Your task to perform on an android device: toggle translation in the chrome app Image 0: 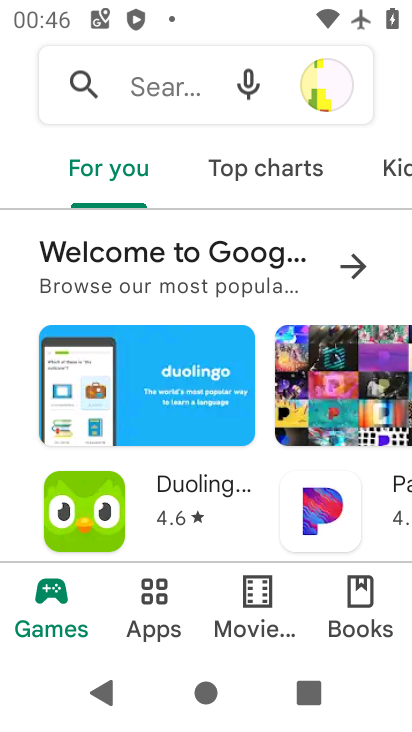
Step 0: click (330, 701)
Your task to perform on an android device: toggle translation in the chrome app Image 1: 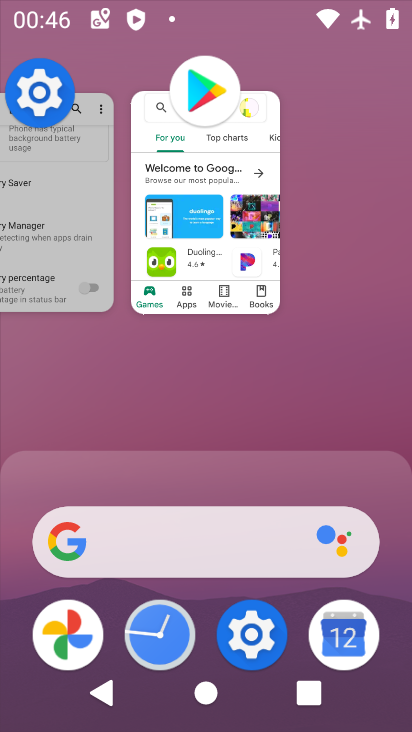
Step 1: click (217, 267)
Your task to perform on an android device: toggle translation in the chrome app Image 2: 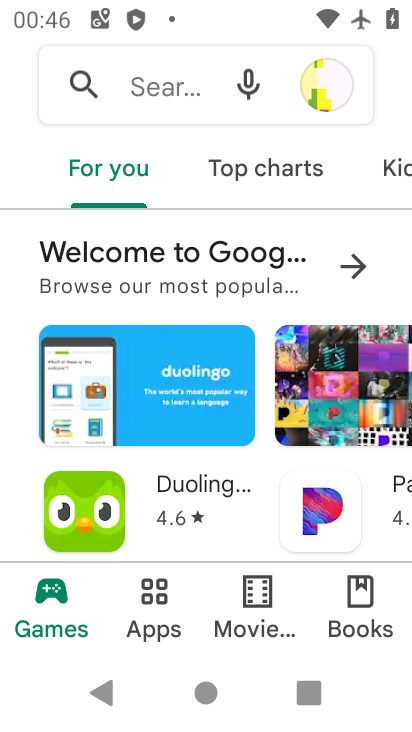
Step 2: press home button
Your task to perform on an android device: toggle translation in the chrome app Image 3: 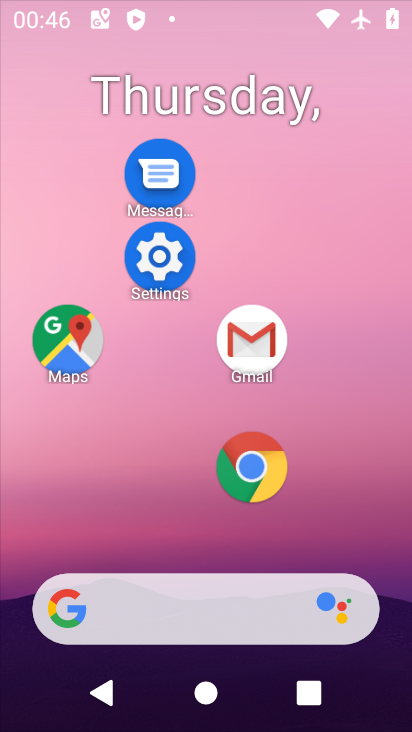
Step 3: drag from (201, 583) to (221, 199)
Your task to perform on an android device: toggle translation in the chrome app Image 4: 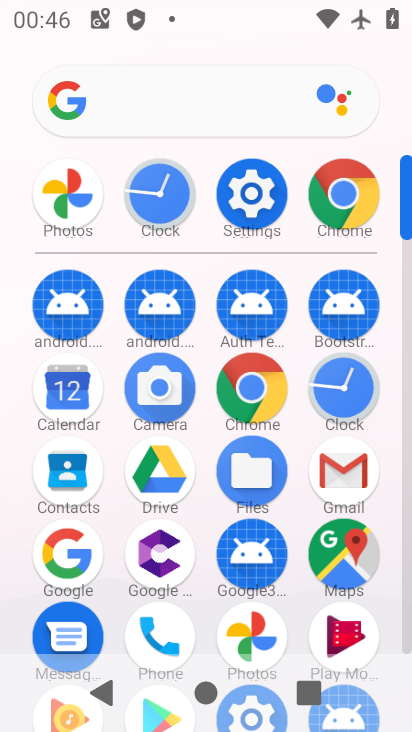
Step 4: click (247, 383)
Your task to perform on an android device: toggle translation in the chrome app Image 5: 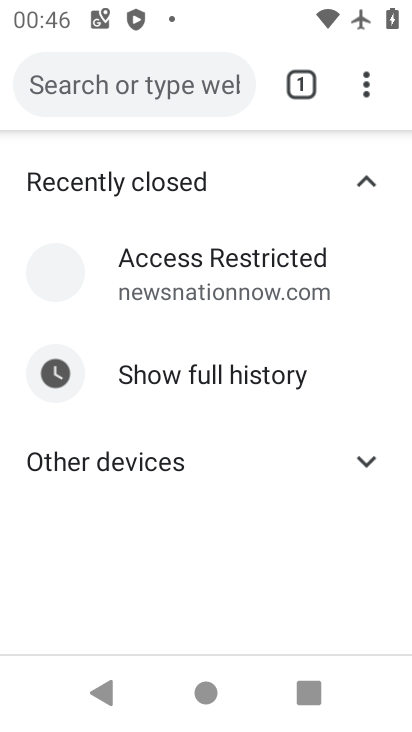
Step 5: drag from (365, 106) to (236, 314)
Your task to perform on an android device: toggle translation in the chrome app Image 6: 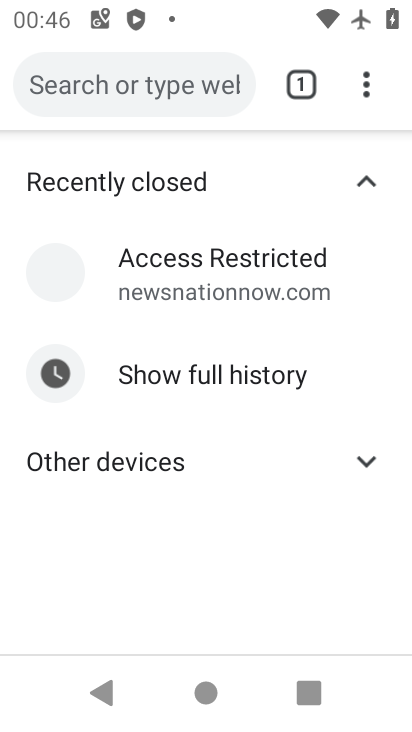
Step 6: drag from (306, 222) to (168, 535)
Your task to perform on an android device: toggle translation in the chrome app Image 7: 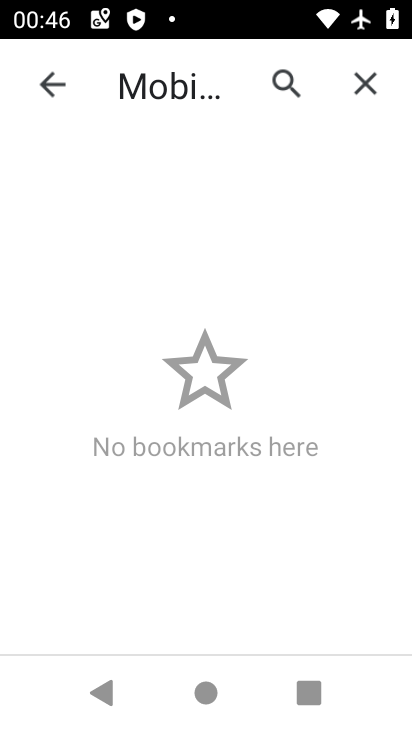
Step 7: click (384, 81)
Your task to perform on an android device: toggle translation in the chrome app Image 8: 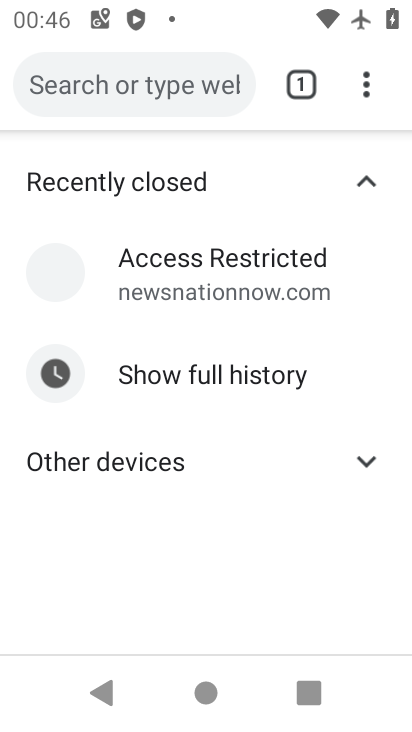
Step 8: drag from (375, 82) to (132, 520)
Your task to perform on an android device: toggle translation in the chrome app Image 9: 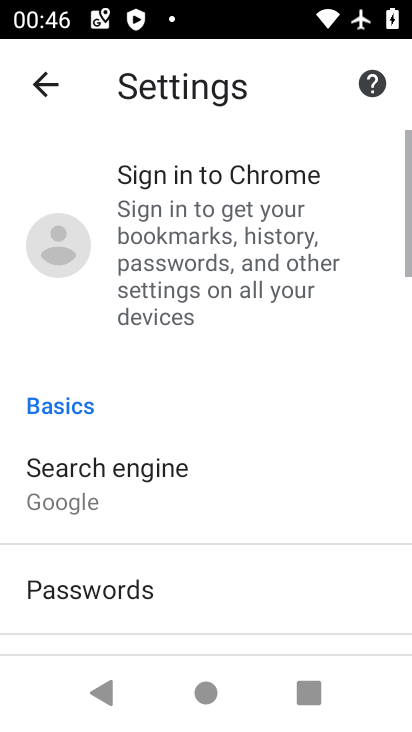
Step 9: drag from (163, 505) to (233, 161)
Your task to perform on an android device: toggle translation in the chrome app Image 10: 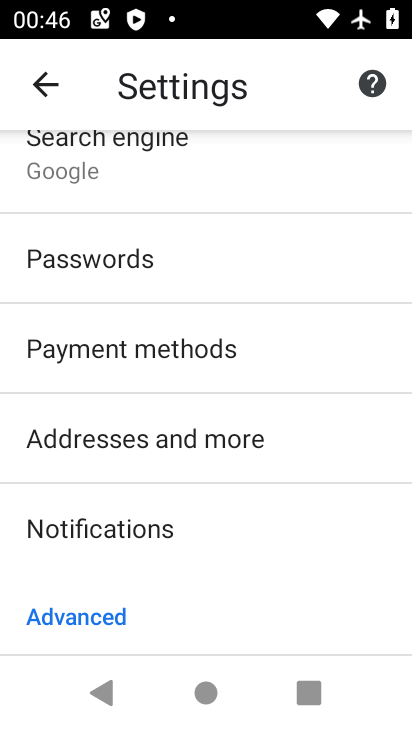
Step 10: drag from (184, 617) to (243, 222)
Your task to perform on an android device: toggle translation in the chrome app Image 11: 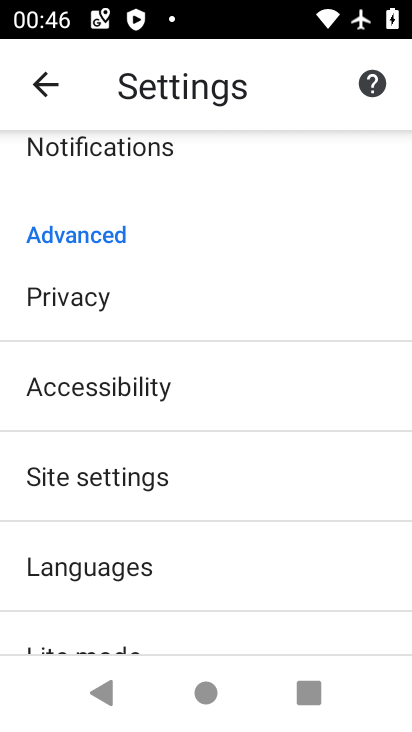
Step 11: drag from (181, 616) to (219, 423)
Your task to perform on an android device: toggle translation in the chrome app Image 12: 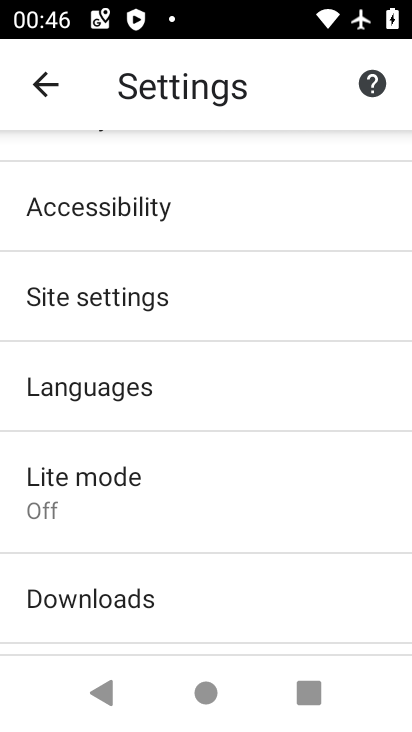
Step 12: click (170, 395)
Your task to perform on an android device: toggle translation in the chrome app Image 13: 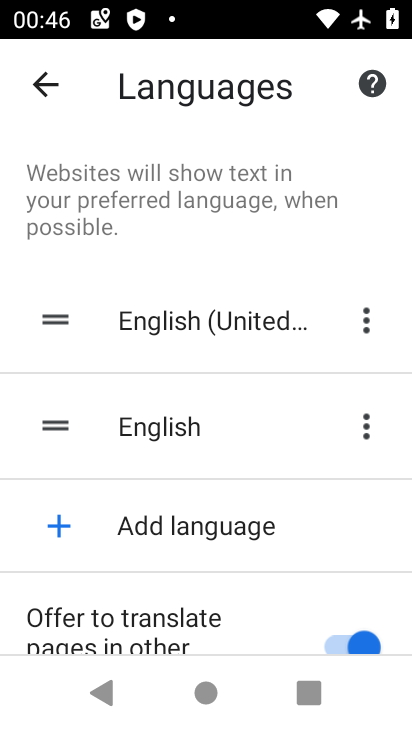
Step 13: drag from (214, 639) to (254, 253)
Your task to perform on an android device: toggle translation in the chrome app Image 14: 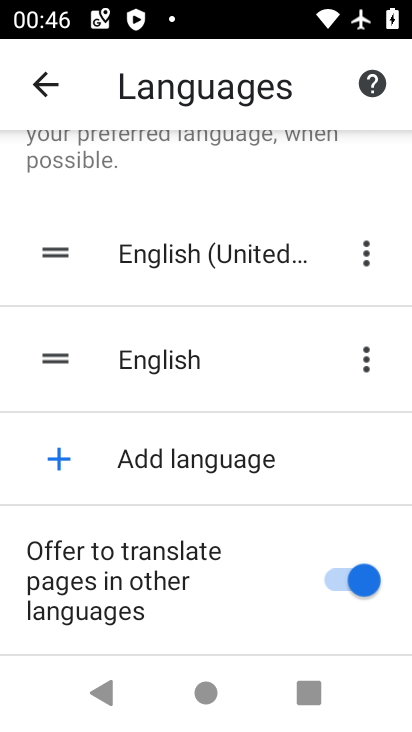
Step 14: click (328, 576)
Your task to perform on an android device: toggle translation in the chrome app Image 15: 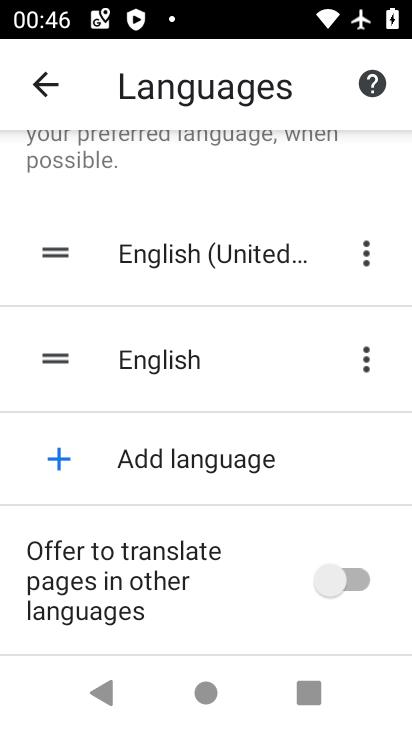
Step 15: task complete